Your task to perform on an android device: Add logitech g502 to the cart on bestbuy Image 0: 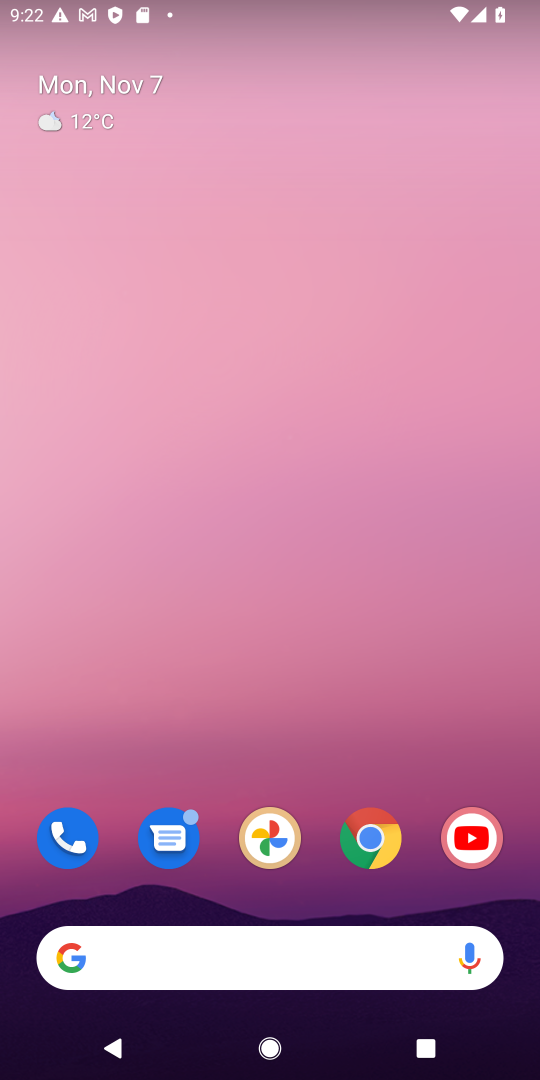
Step 0: click (377, 855)
Your task to perform on an android device: Add logitech g502 to the cart on bestbuy Image 1: 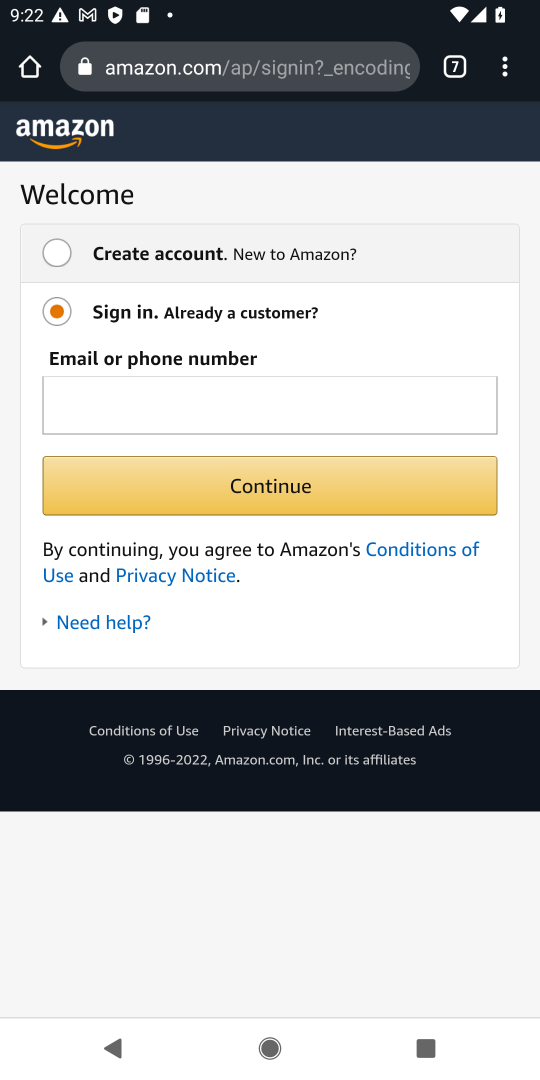
Step 1: click (460, 75)
Your task to perform on an android device: Add logitech g502 to the cart on bestbuy Image 2: 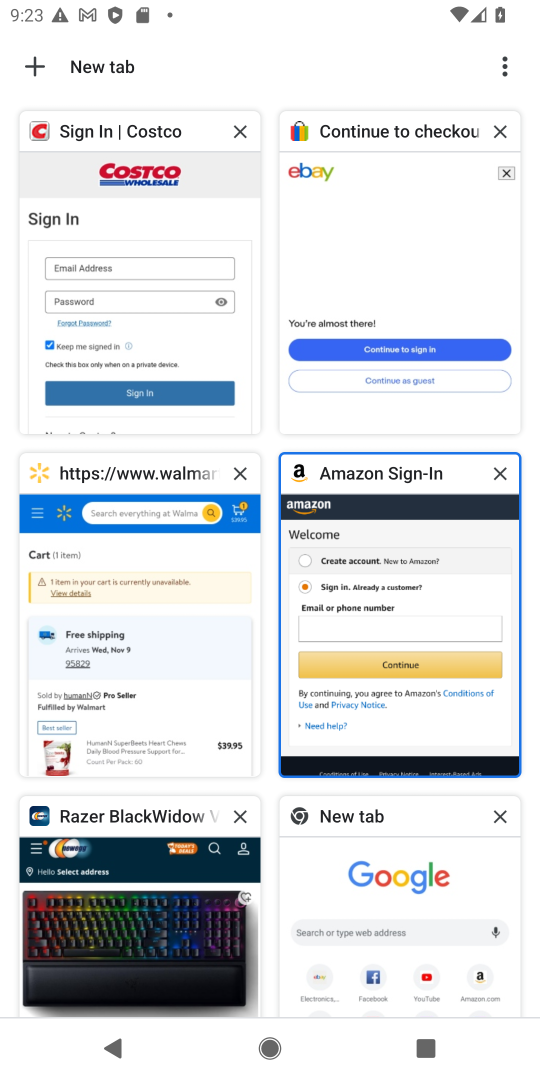
Step 2: click (368, 866)
Your task to perform on an android device: Add logitech g502 to the cart on bestbuy Image 3: 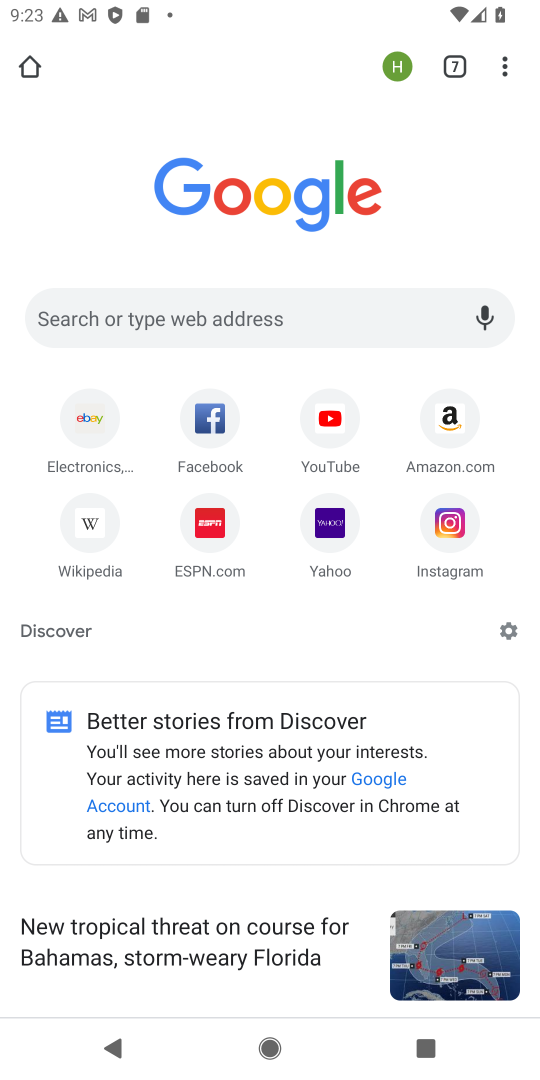
Step 3: click (166, 315)
Your task to perform on an android device: Add logitech g502 to the cart on bestbuy Image 4: 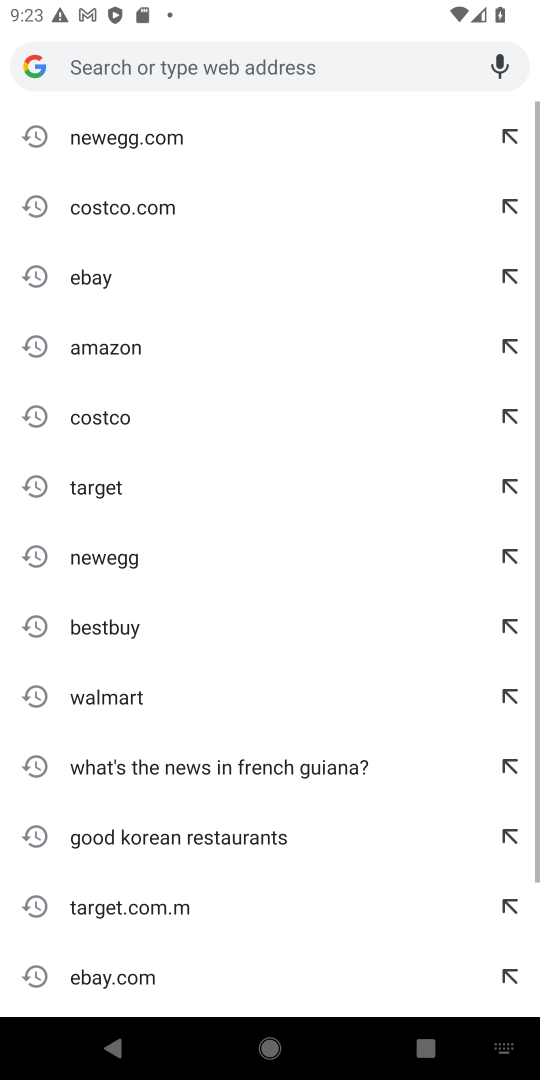
Step 4: click (128, 632)
Your task to perform on an android device: Add logitech g502 to the cart on bestbuy Image 5: 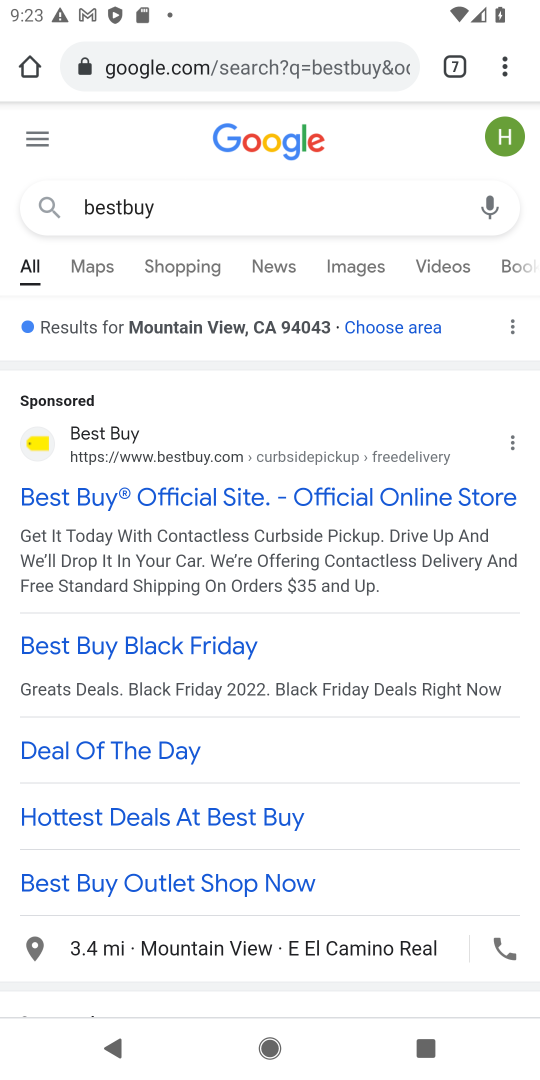
Step 5: drag from (286, 660) to (345, 80)
Your task to perform on an android device: Add logitech g502 to the cart on bestbuy Image 6: 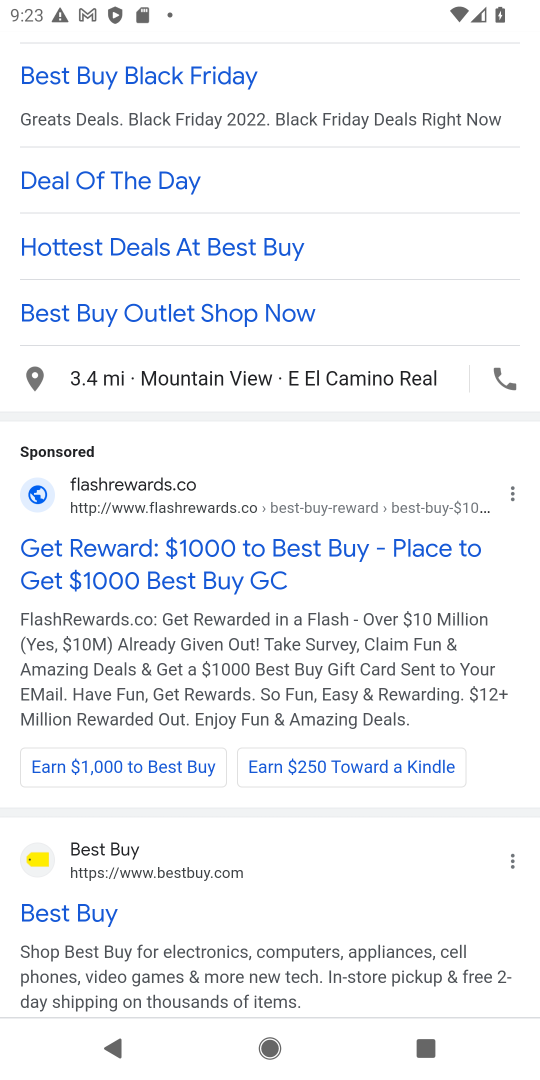
Step 6: drag from (347, 899) to (423, 426)
Your task to perform on an android device: Add logitech g502 to the cart on bestbuy Image 7: 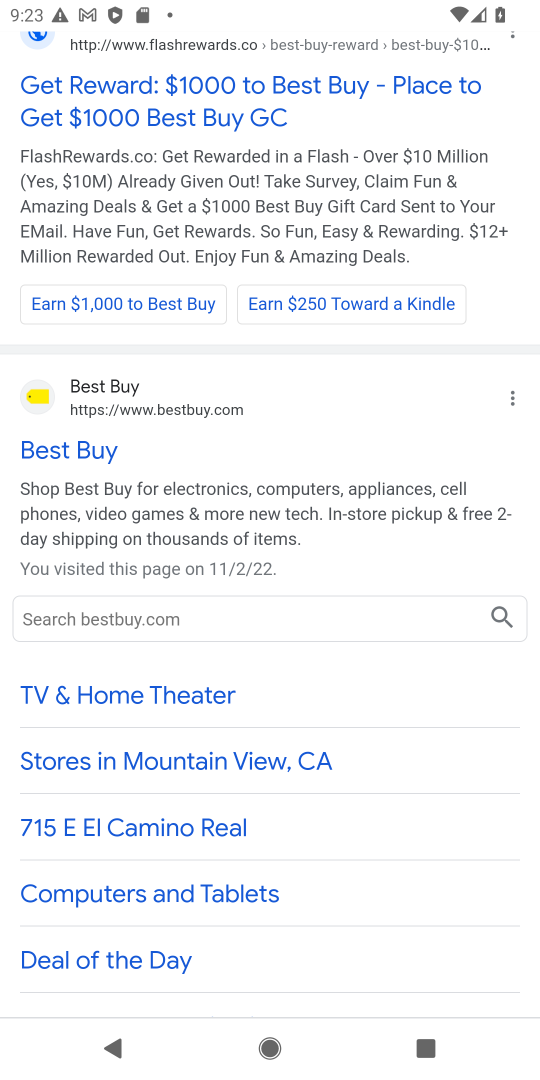
Step 7: click (149, 618)
Your task to perform on an android device: Add logitech g502 to the cart on bestbuy Image 8: 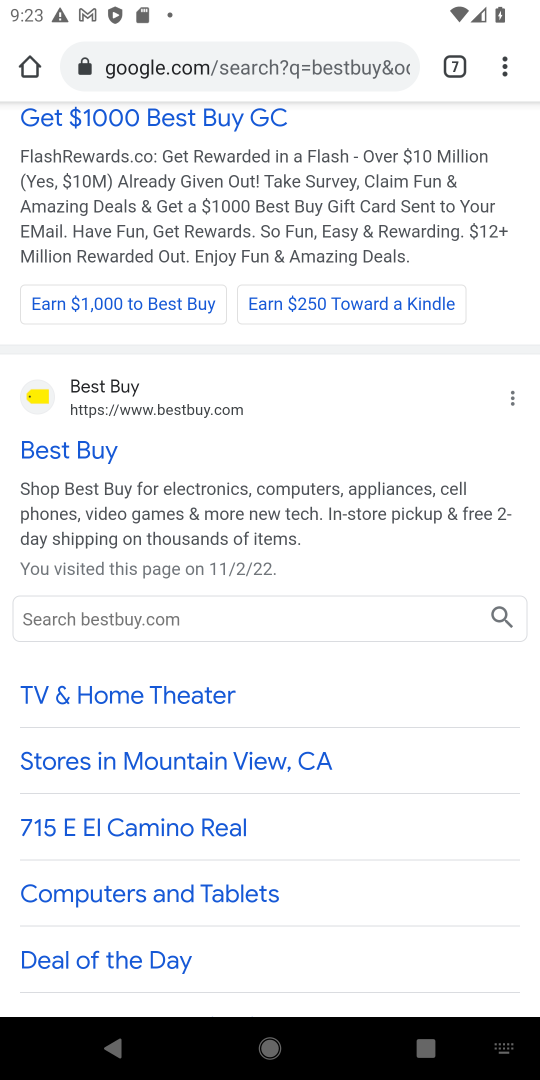
Step 8: type "logitech g502"
Your task to perform on an android device: Add logitech g502 to the cart on bestbuy Image 9: 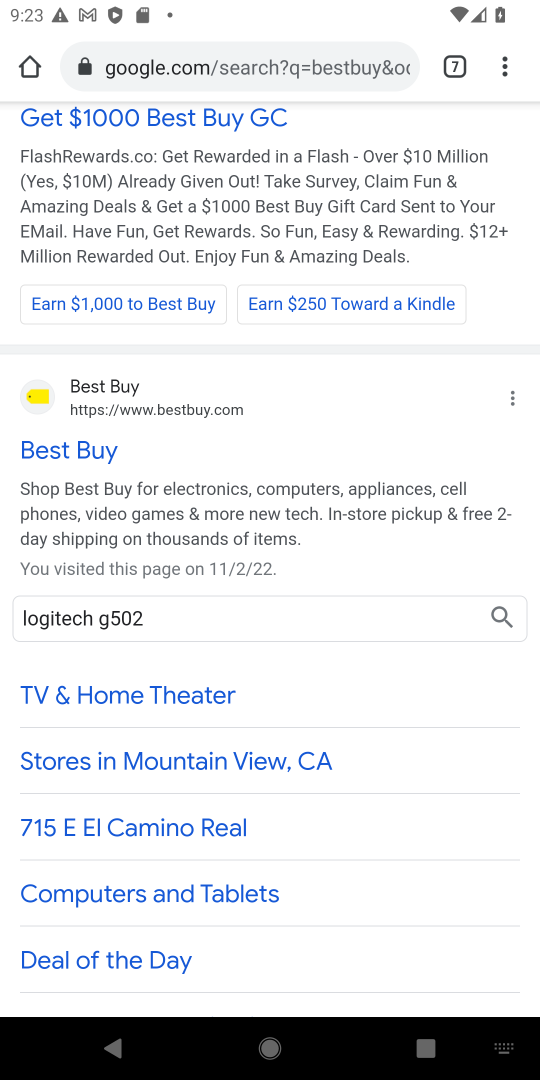
Step 9: click (501, 618)
Your task to perform on an android device: Add logitech g502 to the cart on bestbuy Image 10: 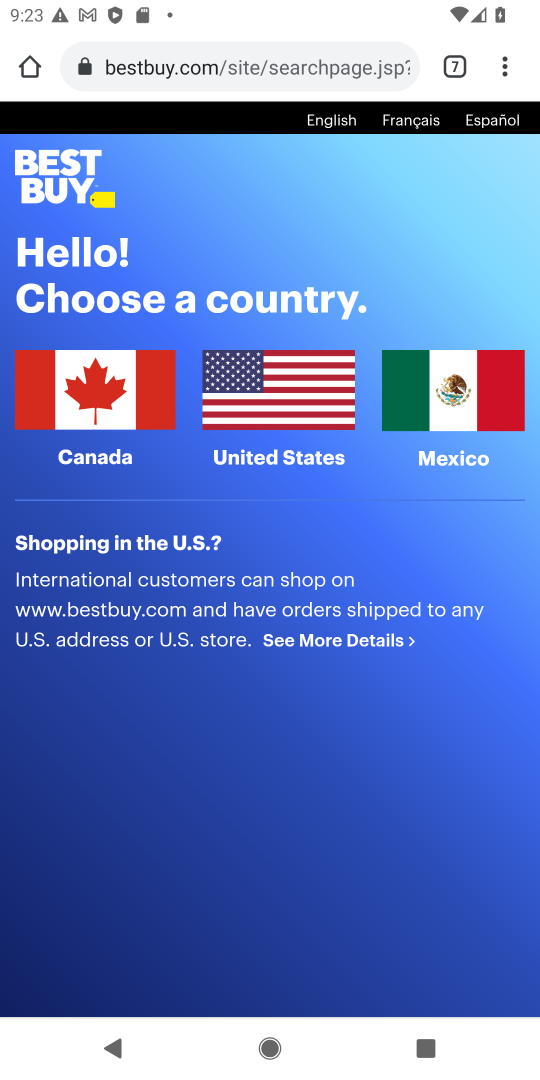
Step 10: click (304, 396)
Your task to perform on an android device: Add logitech g502 to the cart on bestbuy Image 11: 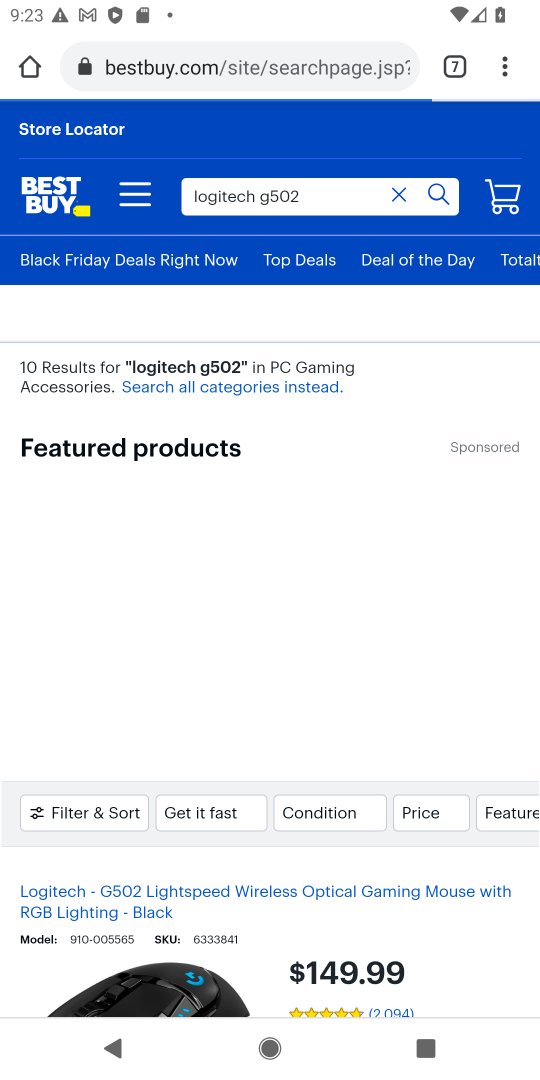
Step 11: drag from (413, 887) to (396, 351)
Your task to perform on an android device: Add logitech g502 to the cart on bestbuy Image 12: 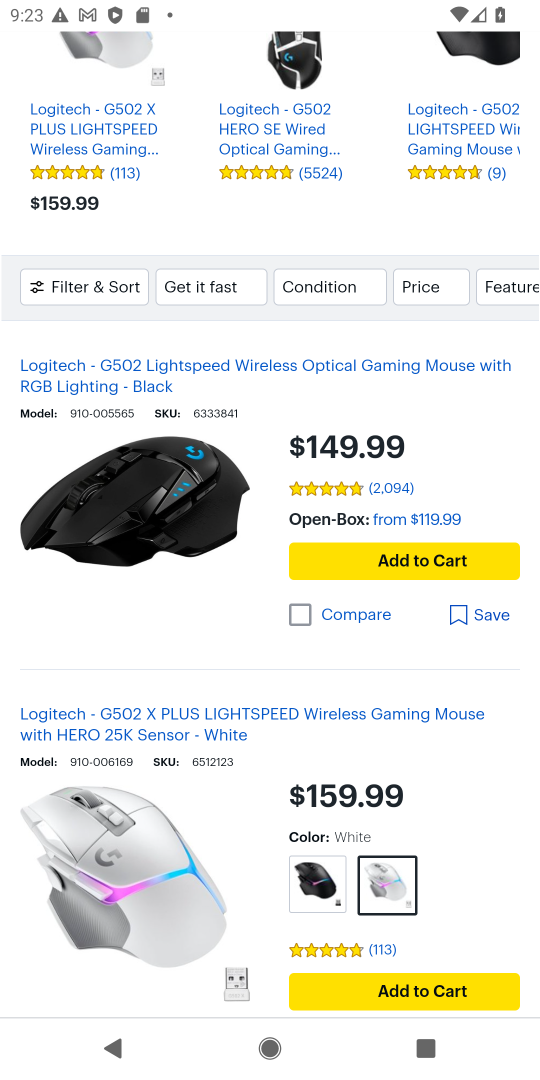
Step 12: click (421, 561)
Your task to perform on an android device: Add logitech g502 to the cart on bestbuy Image 13: 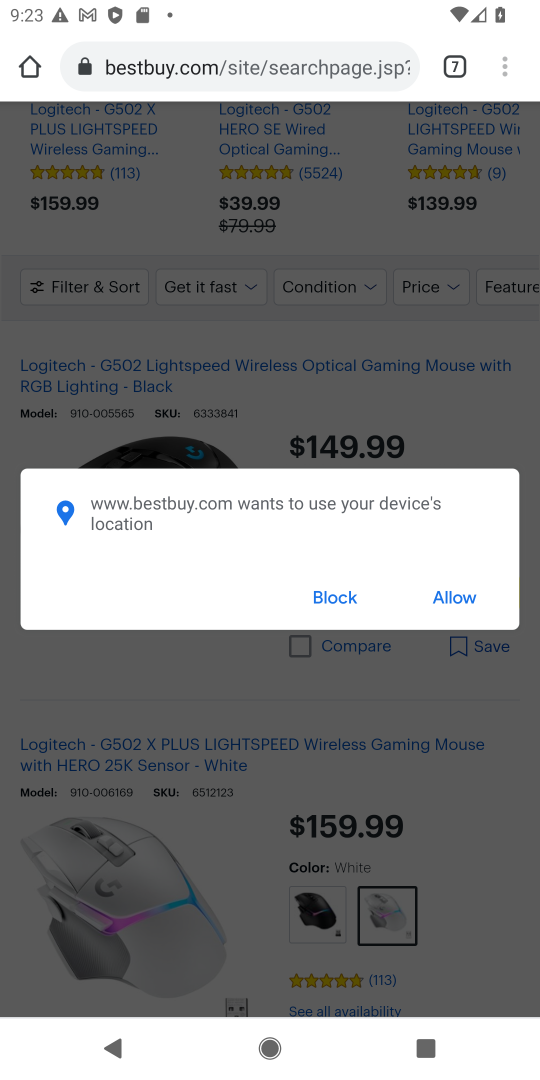
Step 13: click (455, 595)
Your task to perform on an android device: Add logitech g502 to the cart on bestbuy Image 14: 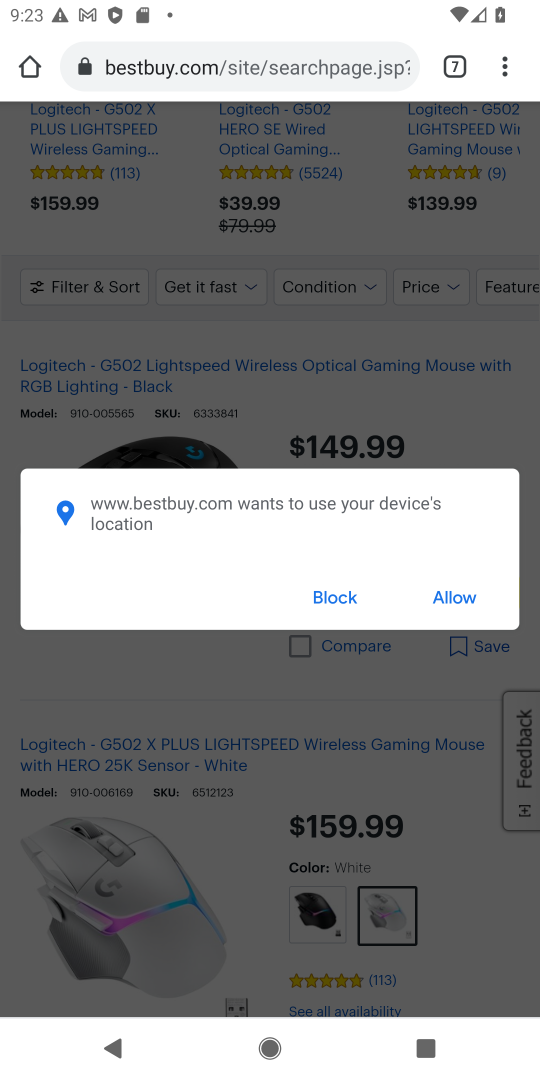
Step 14: click (455, 595)
Your task to perform on an android device: Add logitech g502 to the cart on bestbuy Image 15: 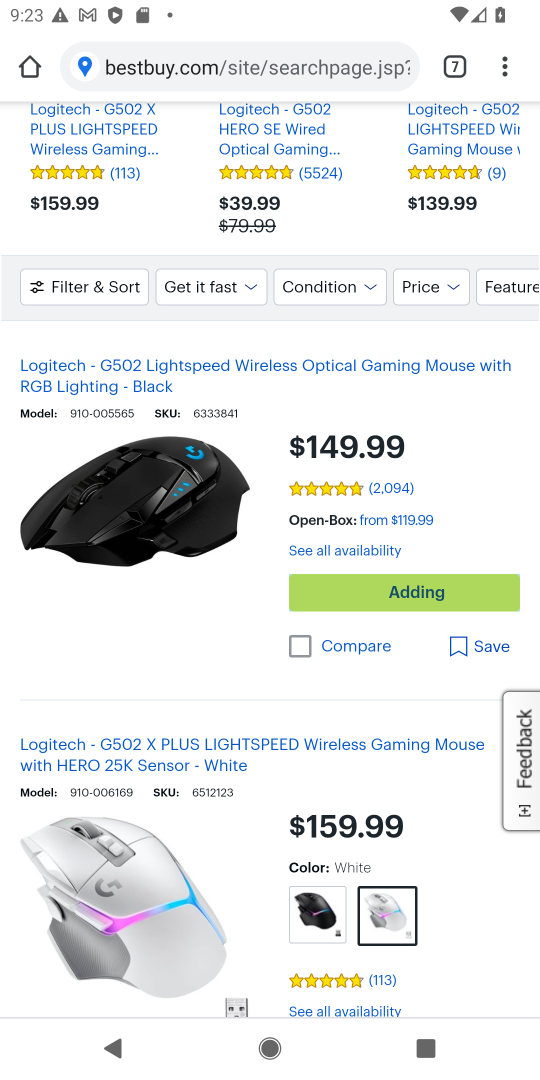
Step 15: click (455, 595)
Your task to perform on an android device: Add logitech g502 to the cart on bestbuy Image 16: 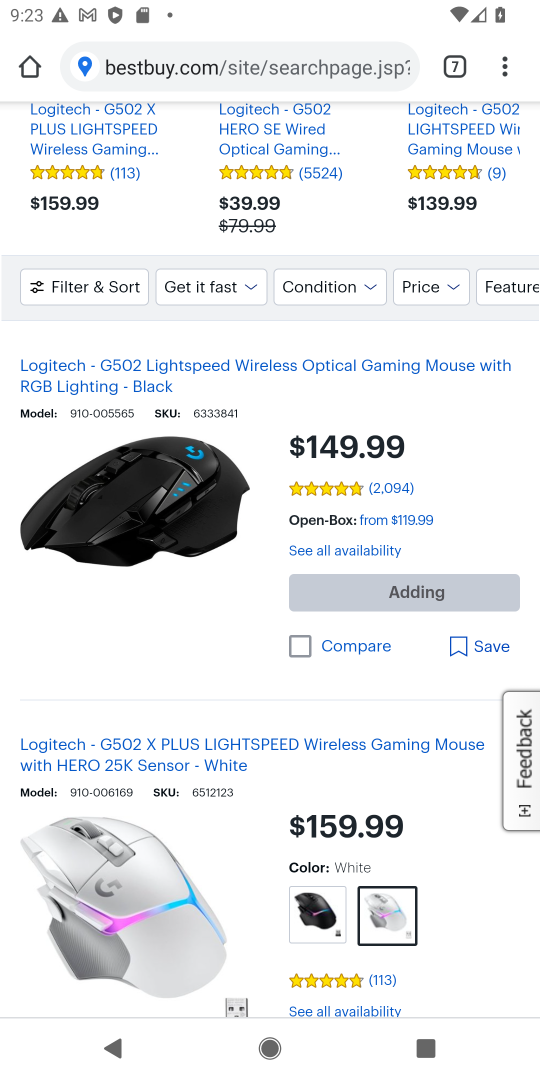
Step 16: click (455, 595)
Your task to perform on an android device: Add logitech g502 to the cart on bestbuy Image 17: 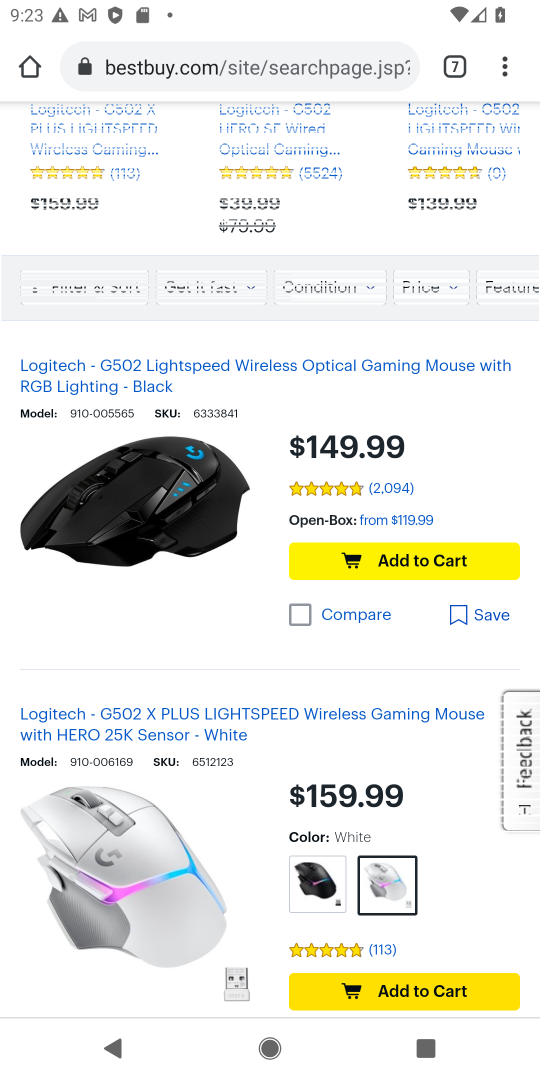
Step 17: task complete